Your task to perform on an android device: make emails show in primary in the gmail app Image 0: 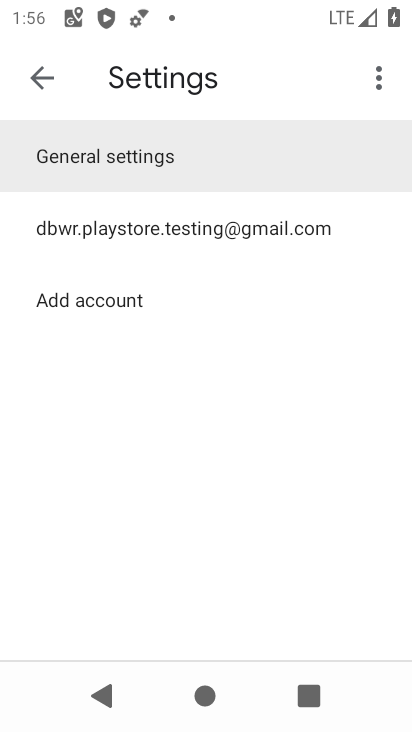
Step 0: press home button
Your task to perform on an android device: make emails show in primary in the gmail app Image 1: 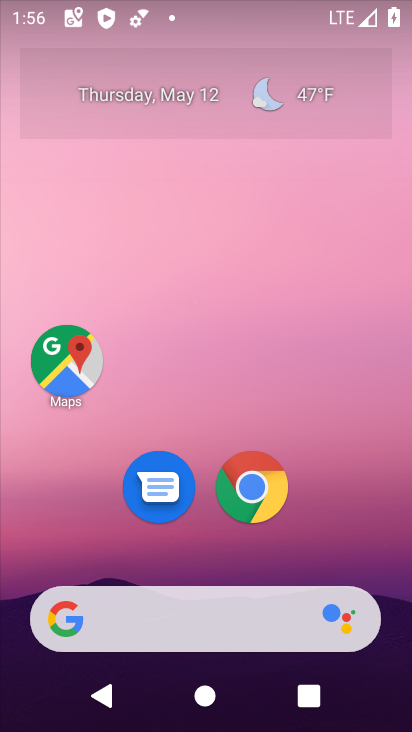
Step 1: drag from (346, 491) to (324, 45)
Your task to perform on an android device: make emails show in primary in the gmail app Image 2: 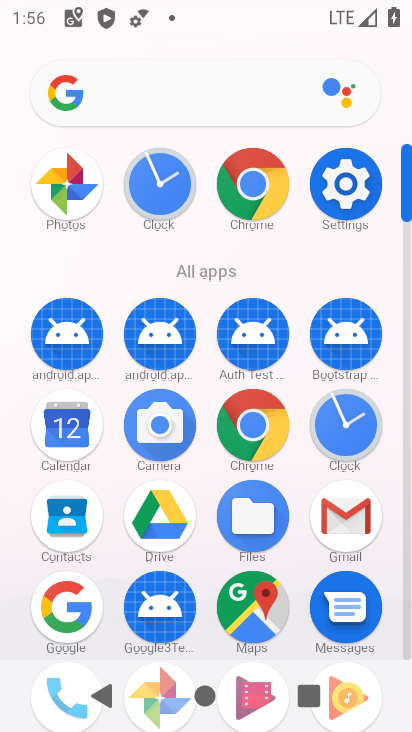
Step 2: click (344, 520)
Your task to perform on an android device: make emails show in primary in the gmail app Image 3: 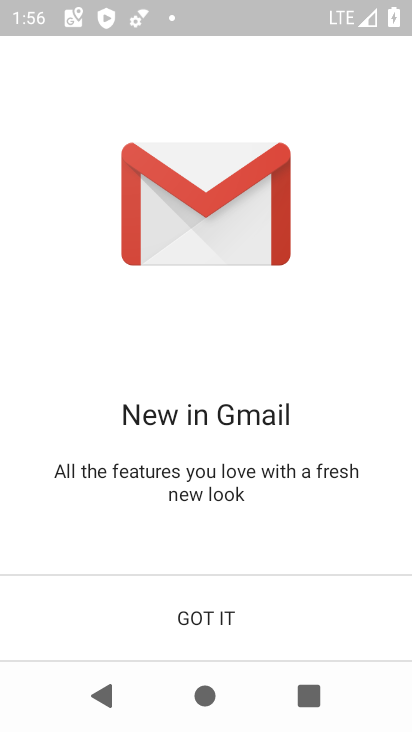
Step 3: click (208, 610)
Your task to perform on an android device: make emails show in primary in the gmail app Image 4: 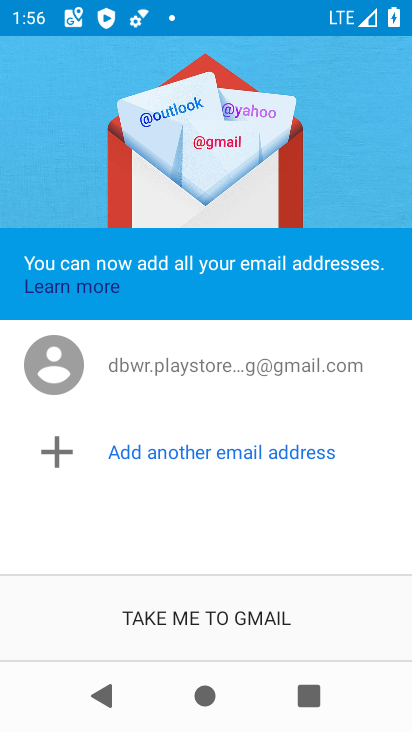
Step 4: click (174, 629)
Your task to perform on an android device: make emails show in primary in the gmail app Image 5: 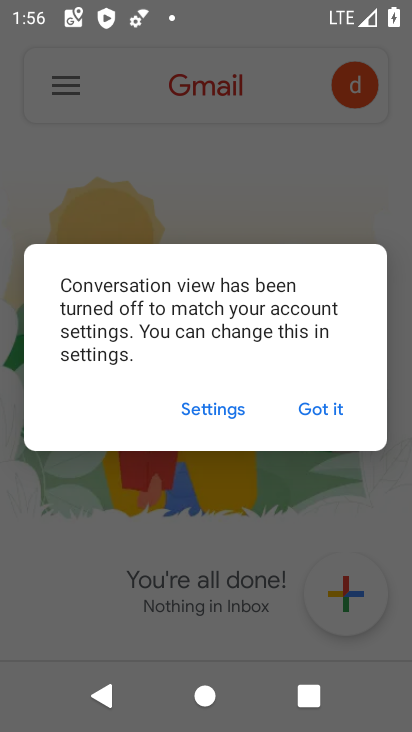
Step 5: click (326, 397)
Your task to perform on an android device: make emails show in primary in the gmail app Image 6: 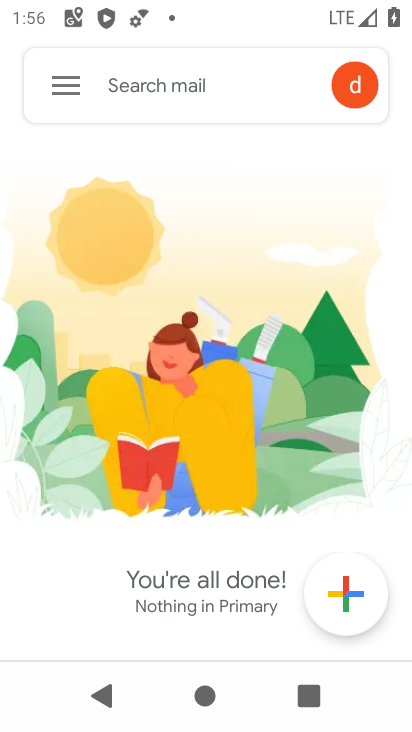
Step 6: click (57, 89)
Your task to perform on an android device: make emails show in primary in the gmail app Image 7: 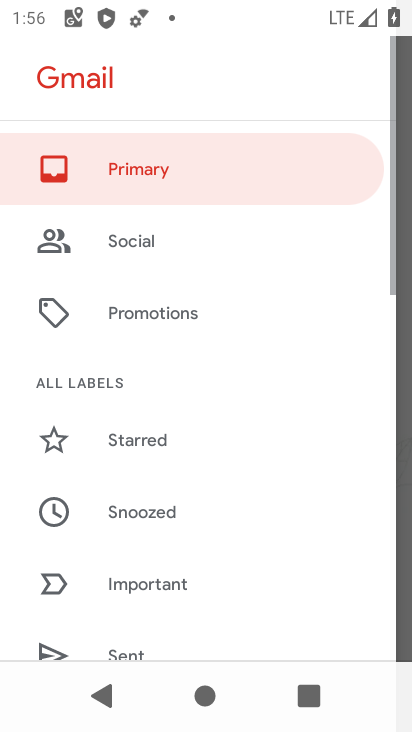
Step 7: drag from (213, 575) to (249, 5)
Your task to perform on an android device: make emails show in primary in the gmail app Image 8: 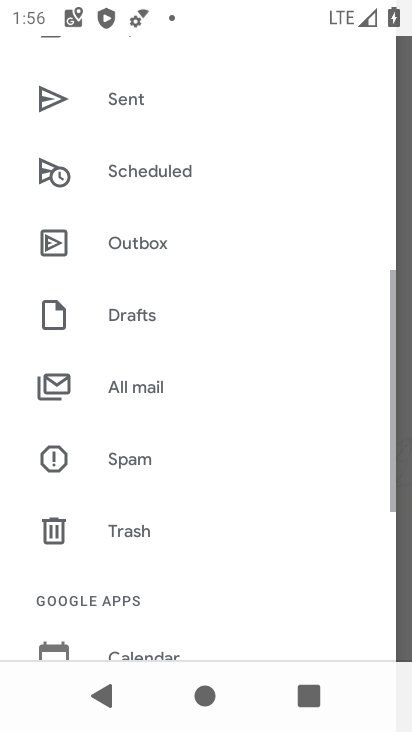
Step 8: drag from (181, 519) to (284, 154)
Your task to perform on an android device: make emails show in primary in the gmail app Image 9: 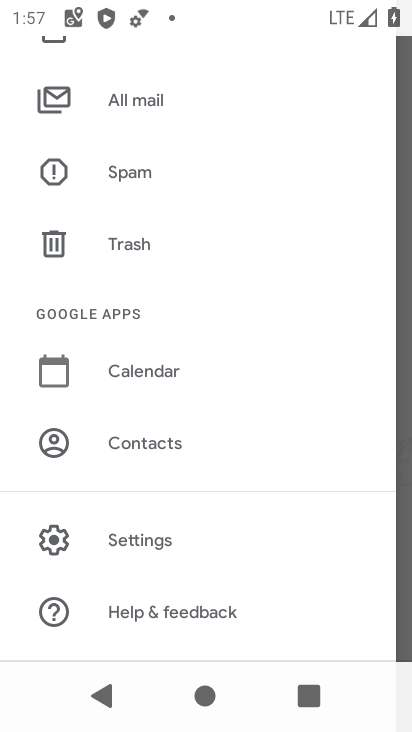
Step 9: click (148, 535)
Your task to perform on an android device: make emails show in primary in the gmail app Image 10: 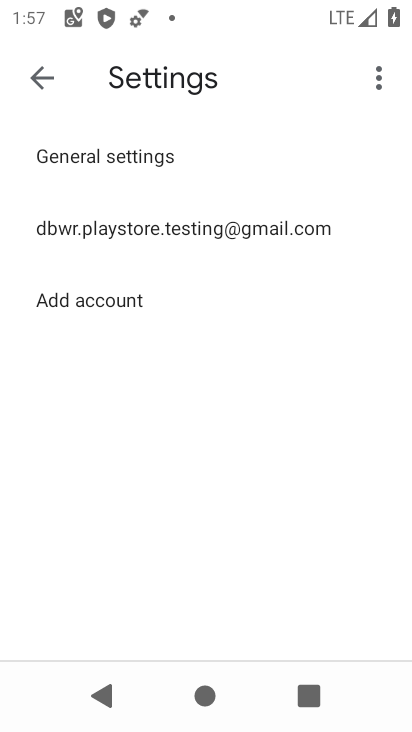
Step 10: click (174, 221)
Your task to perform on an android device: make emails show in primary in the gmail app Image 11: 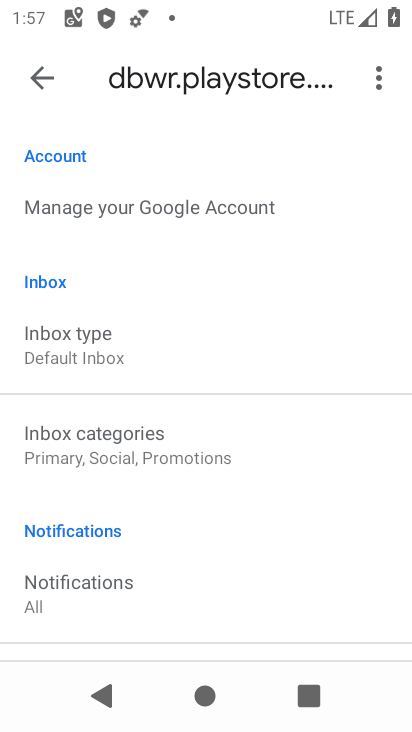
Step 11: click (92, 445)
Your task to perform on an android device: make emails show in primary in the gmail app Image 12: 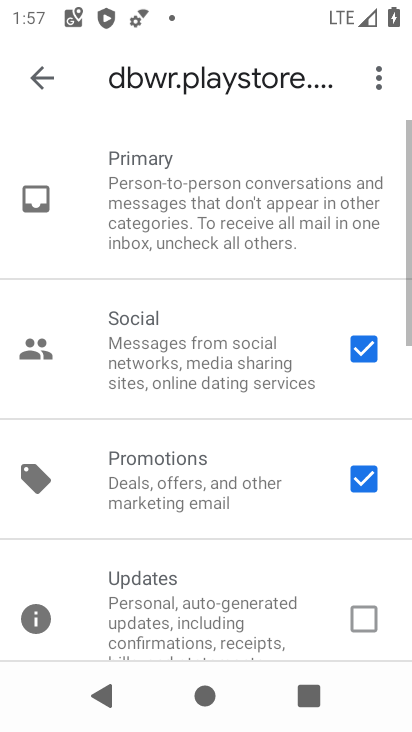
Step 12: task complete